Your task to perform on an android device: Go to location settings Image 0: 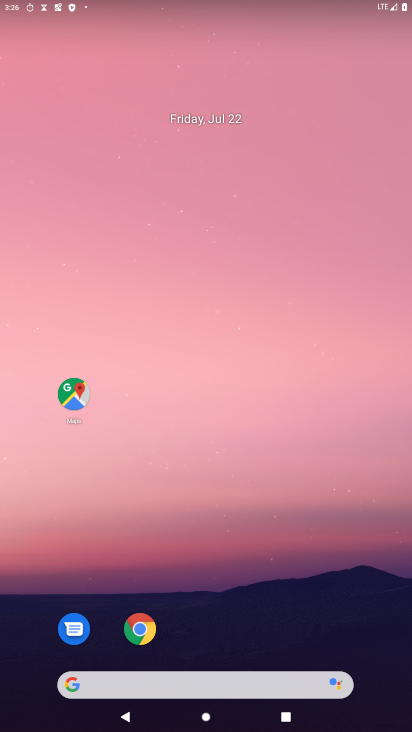
Step 0: drag from (255, 640) to (203, 56)
Your task to perform on an android device: Go to location settings Image 1: 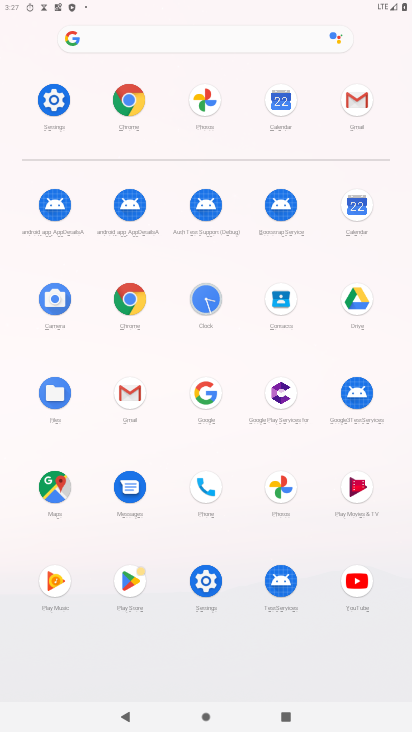
Step 1: click (52, 101)
Your task to perform on an android device: Go to location settings Image 2: 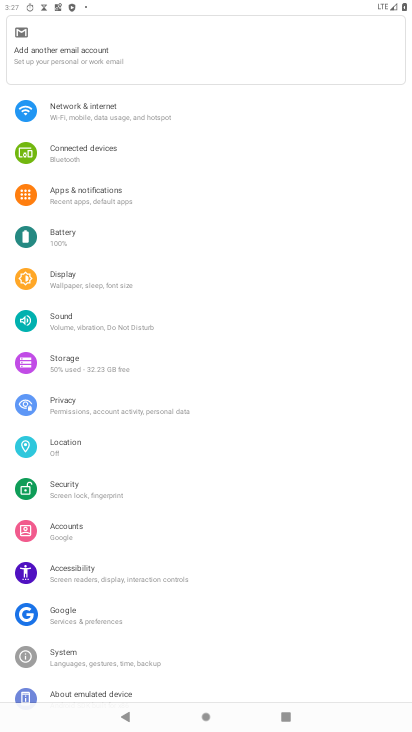
Step 2: click (95, 443)
Your task to perform on an android device: Go to location settings Image 3: 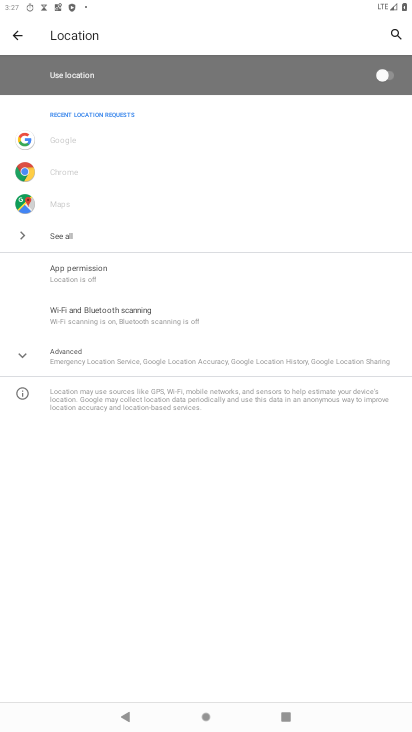
Step 3: task complete